Your task to perform on an android device: Open Chrome and go to the settings page Image 0: 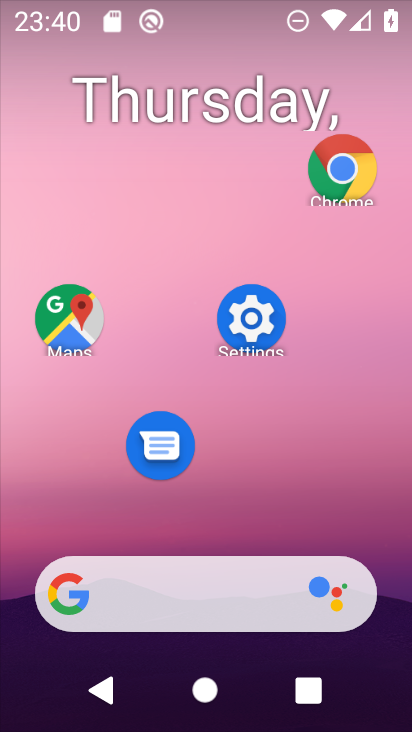
Step 0: drag from (215, 395) to (205, 121)
Your task to perform on an android device: Open Chrome and go to the settings page Image 1: 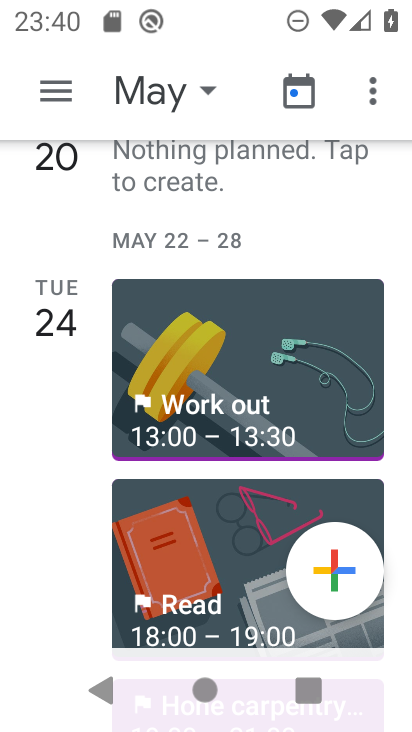
Step 1: drag from (244, 614) to (267, 186)
Your task to perform on an android device: Open Chrome and go to the settings page Image 2: 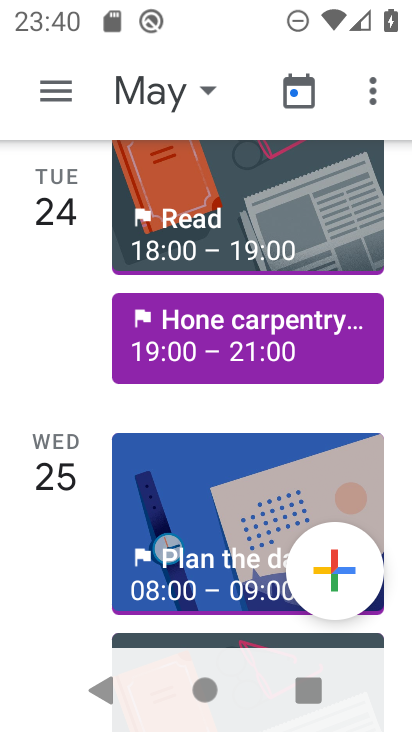
Step 2: drag from (265, 141) to (302, 662)
Your task to perform on an android device: Open Chrome and go to the settings page Image 3: 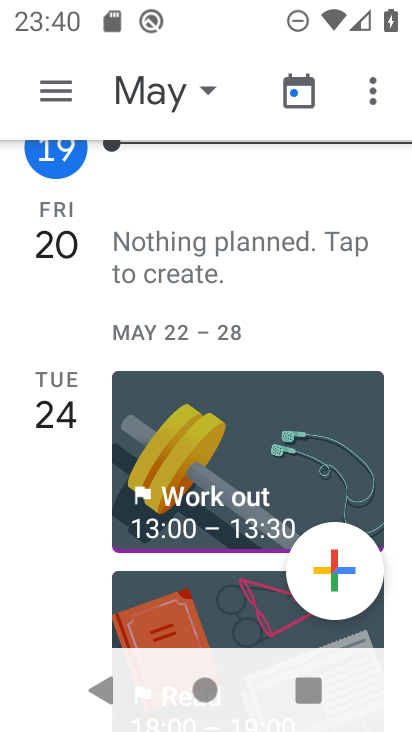
Step 3: press home button
Your task to perform on an android device: Open Chrome and go to the settings page Image 4: 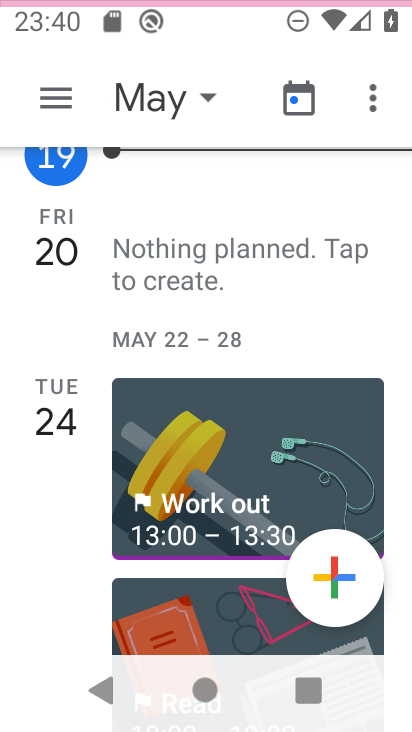
Step 4: drag from (221, 554) to (232, 153)
Your task to perform on an android device: Open Chrome and go to the settings page Image 5: 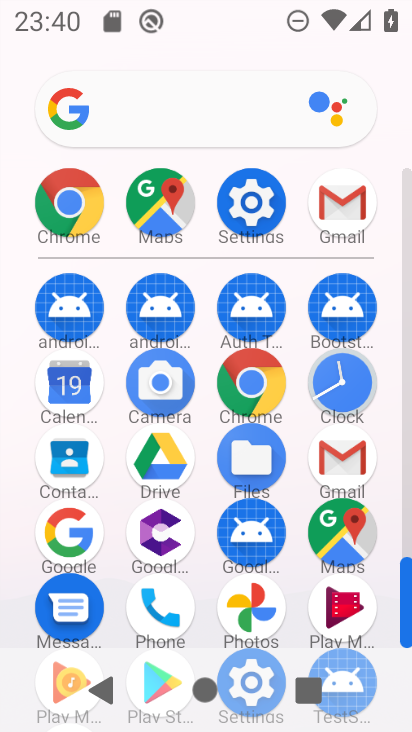
Step 5: click (243, 388)
Your task to perform on an android device: Open Chrome and go to the settings page Image 6: 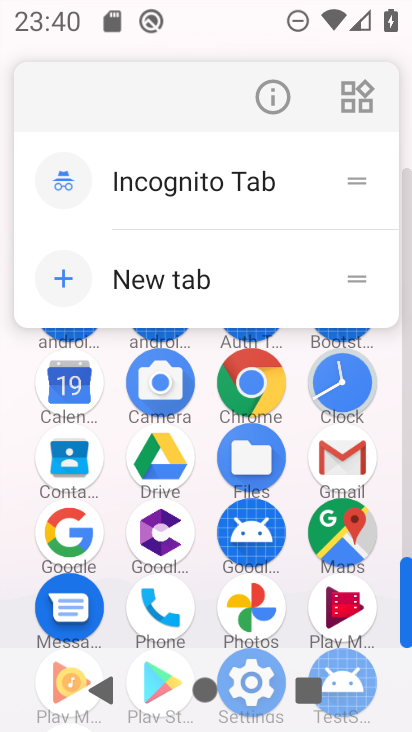
Step 6: click (263, 75)
Your task to perform on an android device: Open Chrome and go to the settings page Image 7: 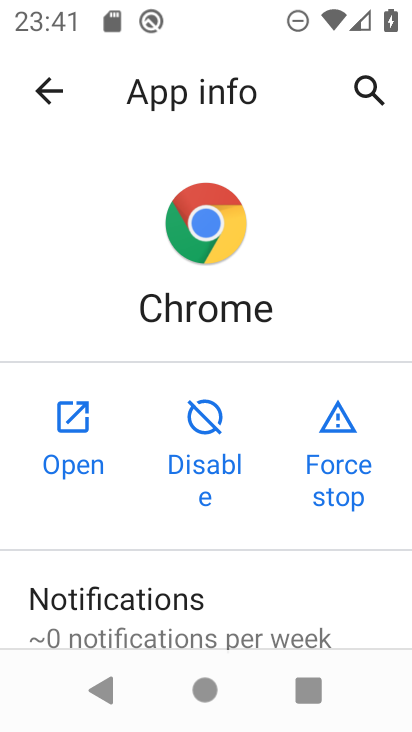
Step 7: click (69, 451)
Your task to perform on an android device: Open Chrome and go to the settings page Image 8: 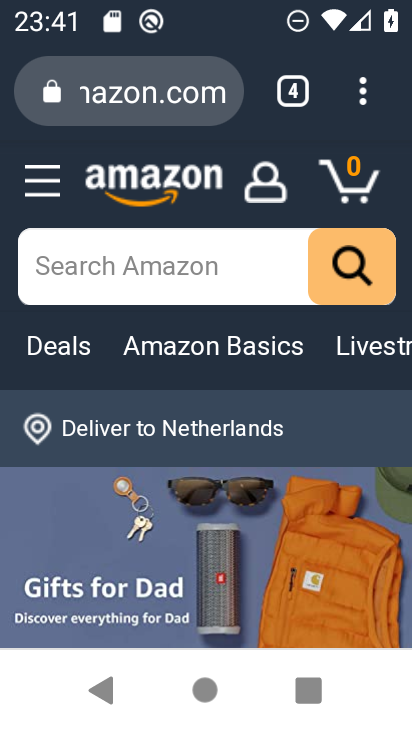
Step 8: drag from (220, 483) to (292, 215)
Your task to perform on an android device: Open Chrome and go to the settings page Image 9: 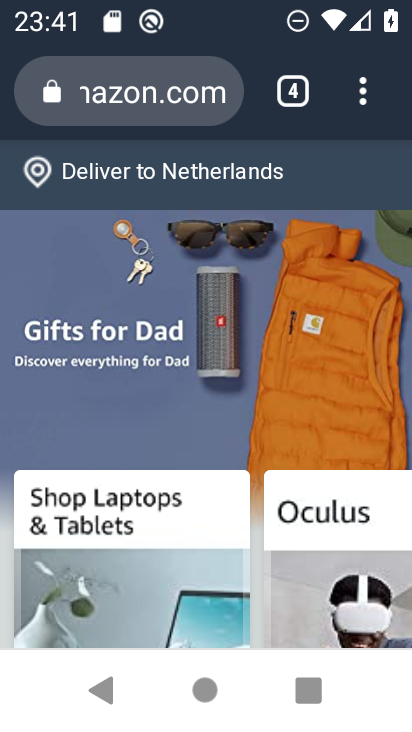
Step 9: click (356, 95)
Your task to perform on an android device: Open Chrome and go to the settings page Image 10: 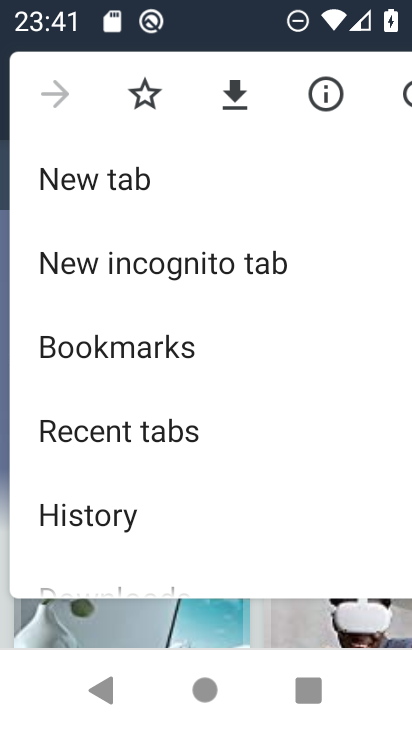
Step 10: drag from (165, 517) to (244, 113)
Your task to perform on an android device: Open Chrome and go to the settings page Image 11: 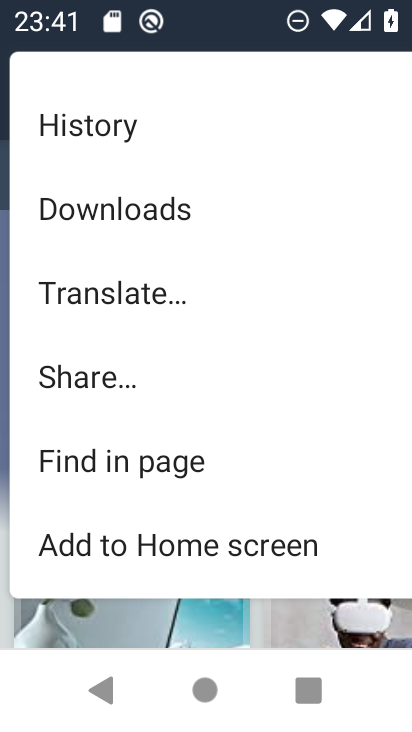
Step 11: drag from (179, 436) to (241, 118)
Your task to perform on an android device: Open Chrome and go to the settings page Image 12: 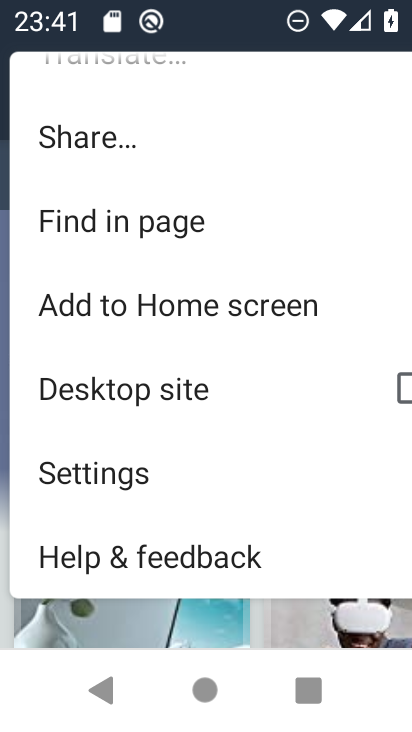
Step 12: click (185, 477)
Your task to perform on an android device: Open Chrome and go to the settings page Image 13: 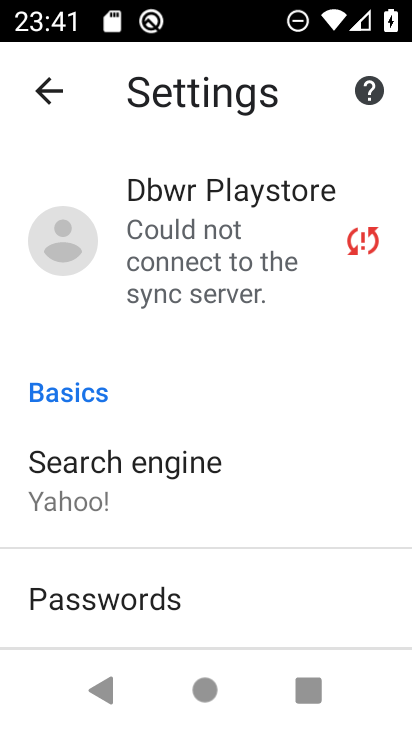
Step 13: task complete